Your task to perform on an android device: search for starred emails in the gmail app Image 0: 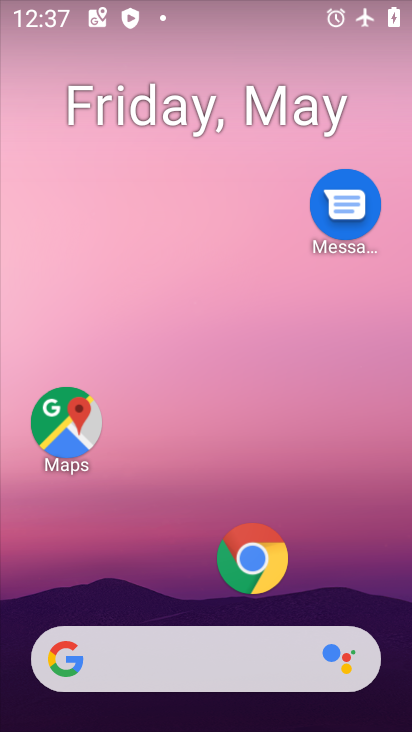
Step 0: drag from (237, 586) to (201, 158)
Your task to perform on an android device: search for starred emails in the gmail app Image 1: 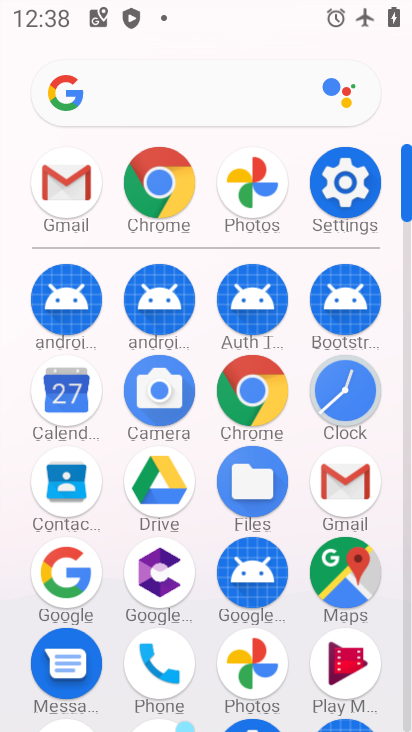
Step 1: click (336, 485)
Your task to perform on an android device: search for starred emails in the gmail app Image 2: 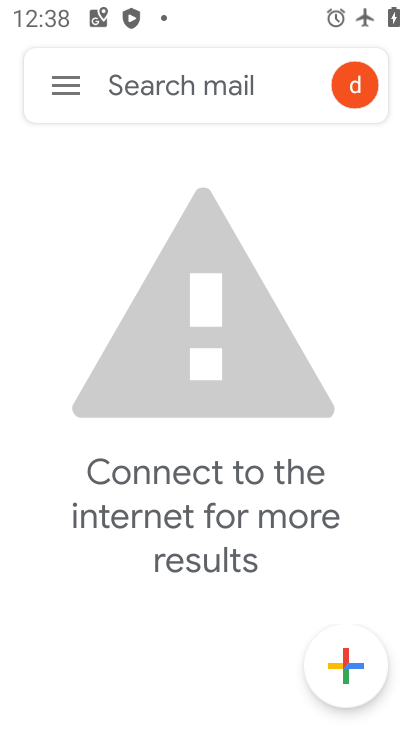
Step 2: click (54, 87)
Your task to perform on an android device: search for starred emails in the gmail app Image 3: 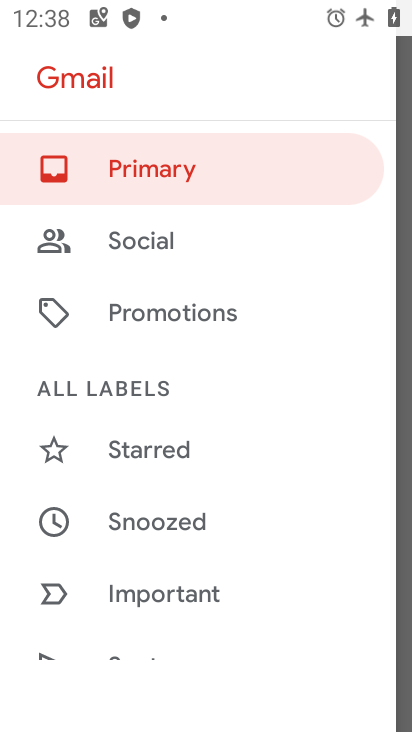
Step 3: click (110, 444)
Your task to perform on an android device: search for starred emails in the gmail app Image 4: 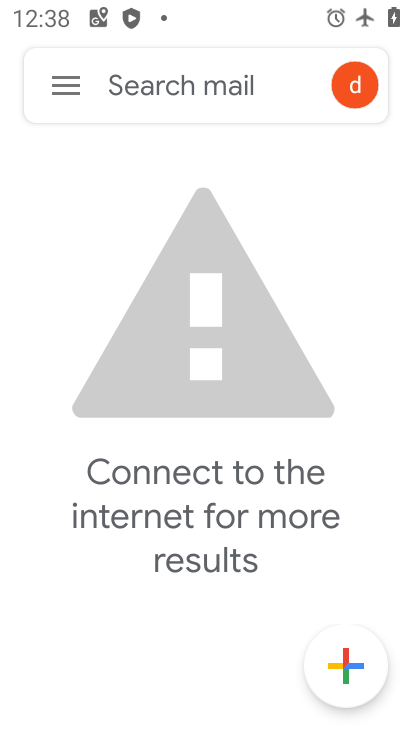
Step 4: task complete